Your task to perform on an android device: delete a single message in the gmail app Image 0: 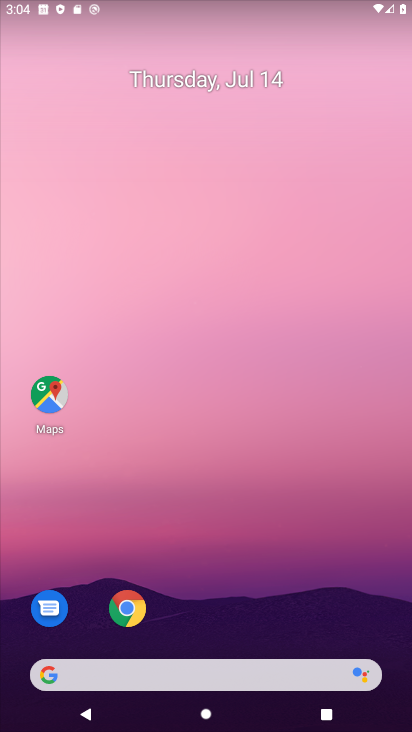
Step 0: drag from (268, 628) to (239, 1)
Your task to perform on an android device: delete a single message in the gmail app Image 1: 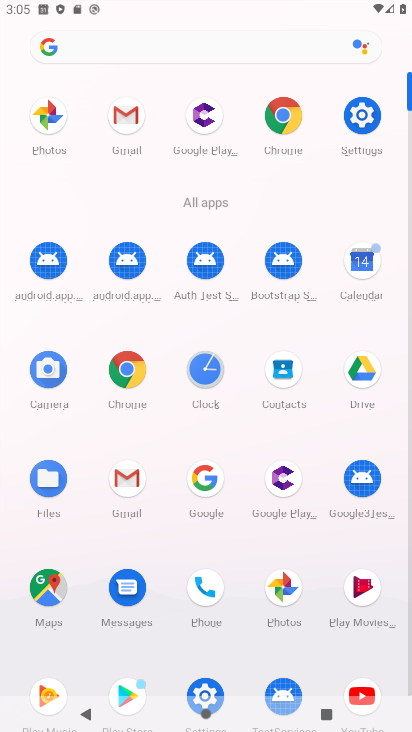
Step 1: click (133, 125)
Your task to perform on an android device: delete a single message in the gmail app Image 2: 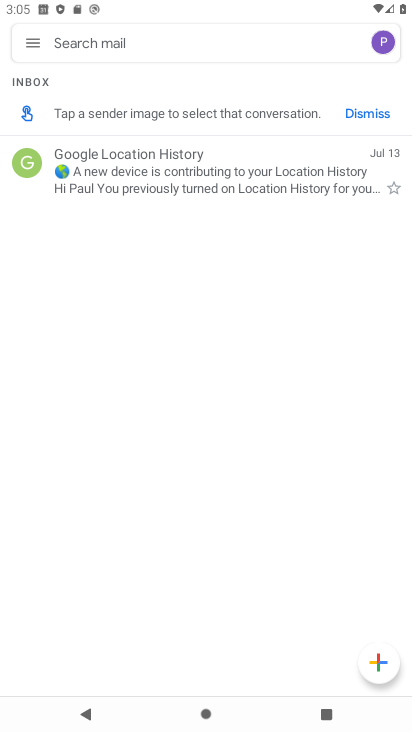
Step 2: click (26, 157)
Your task to perform on an android device: delete a single message in the gmail app Image 3: 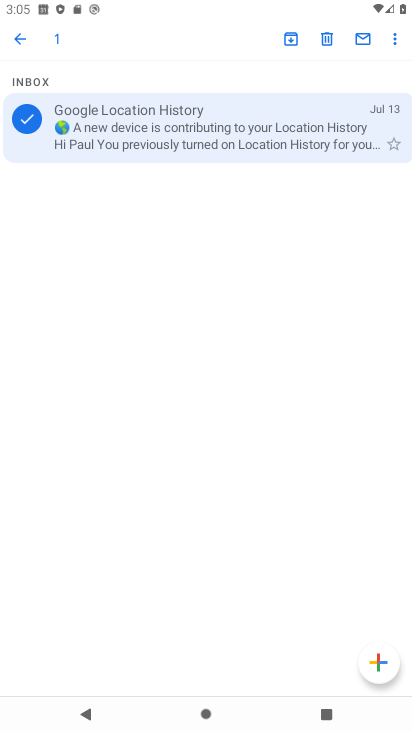
Step 3: click (323, 38)
Your task to perform on an android device: delete a single message in the gmail app Image 4: 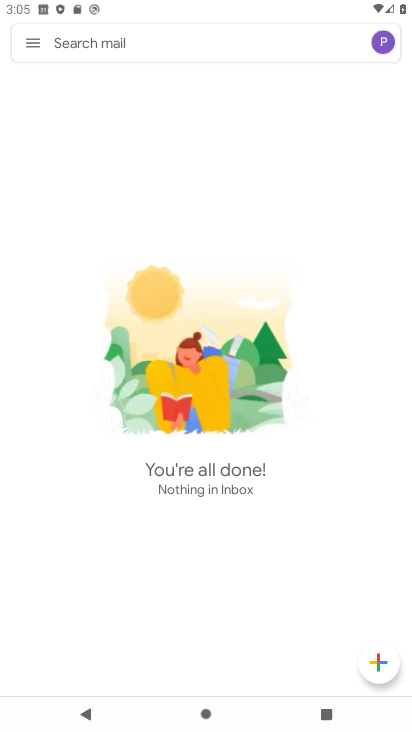
Step 4: task complete